Your task to perform on an android device: Show me recent news Image 0: 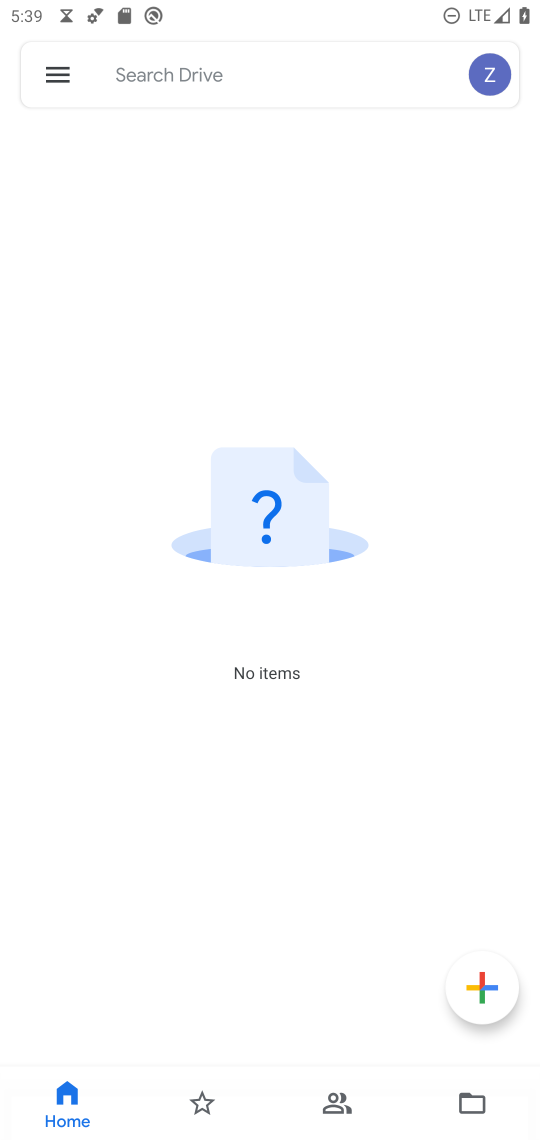
Step 0: press home button
Your task to perform on an android device: Show me recent news Image 1: 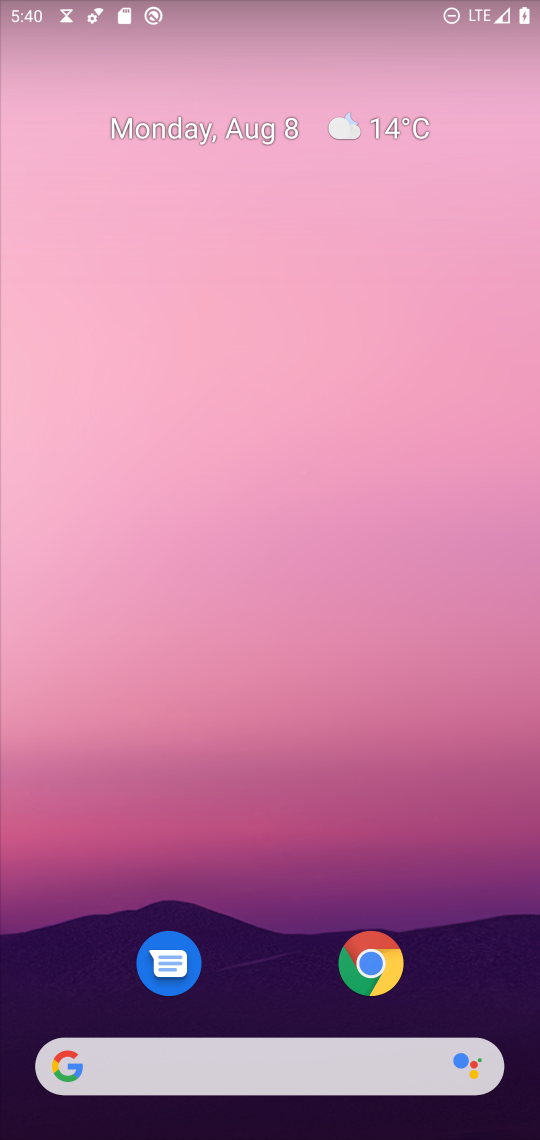
Step 1: click (256, 1055)
Your task to perform on an android device: Show me recent news Image 2: 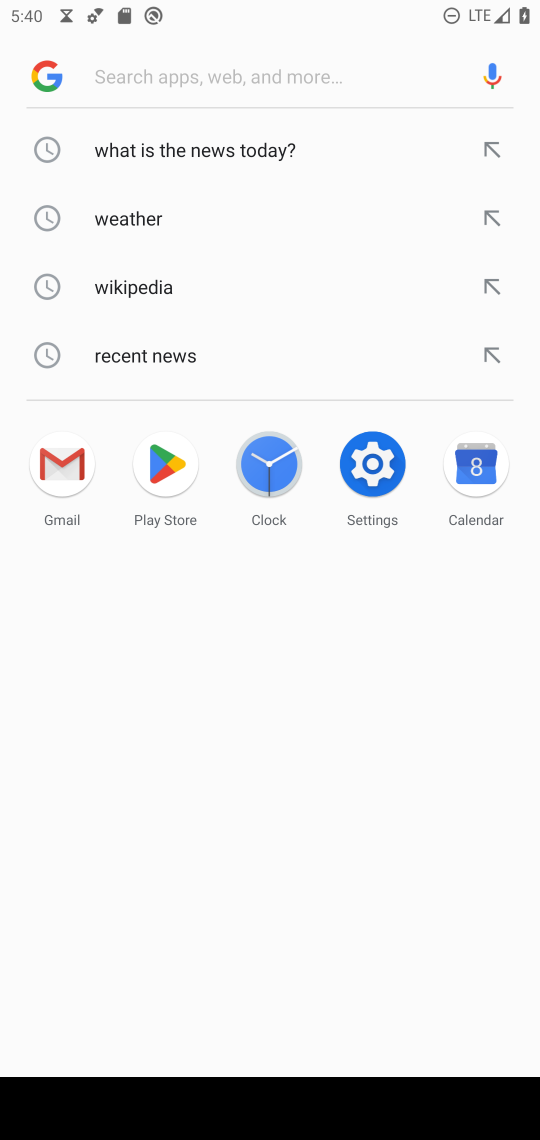
Step 2: type "recent news"
Your task to perform on an android device: Show me recent news Image 3: 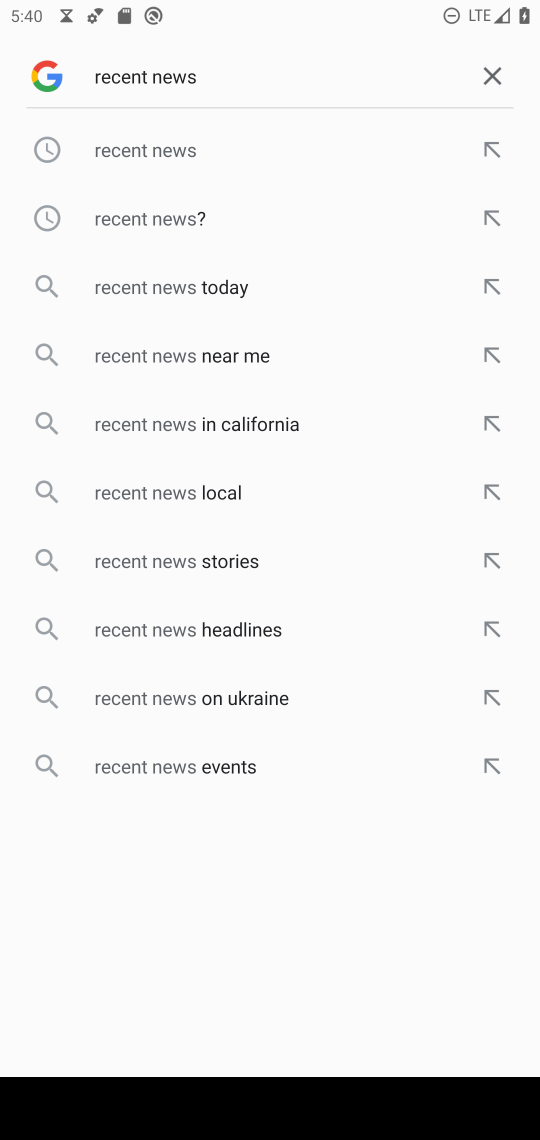
Step 3: click (277, 135)
Your task to perform on an android device: Show me recent news Image 4: 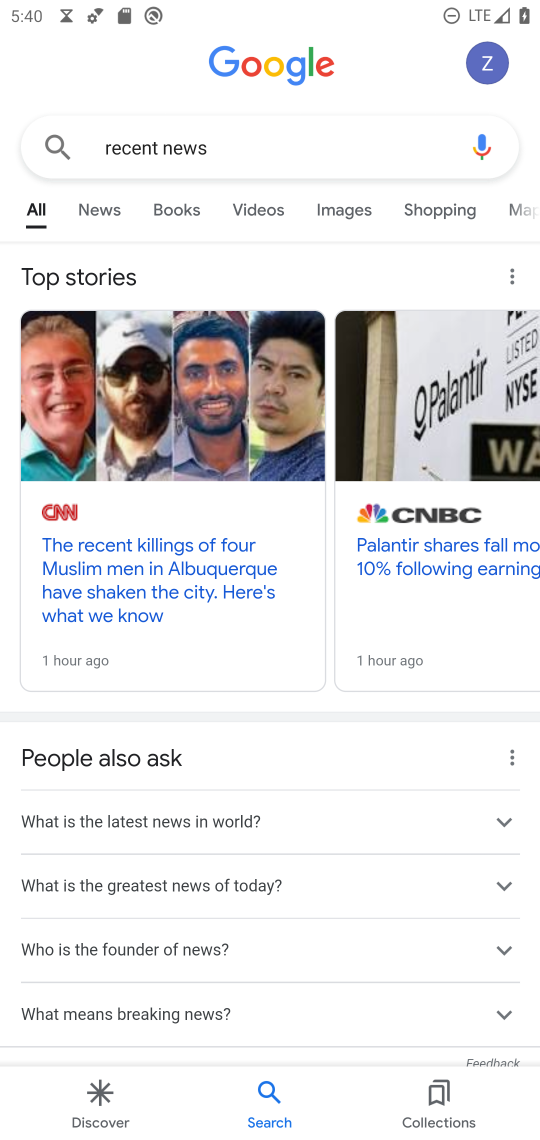
Step 4: task complete